Your task to perform on an android device: make emails show in primary in the gmail app Image 0: 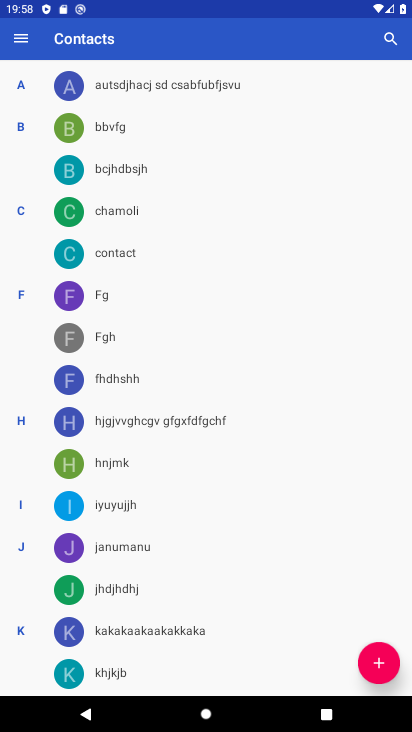
Step 0: press home button
Your task to perform on an android device: make emails show in primary in the gmail app Image 1: 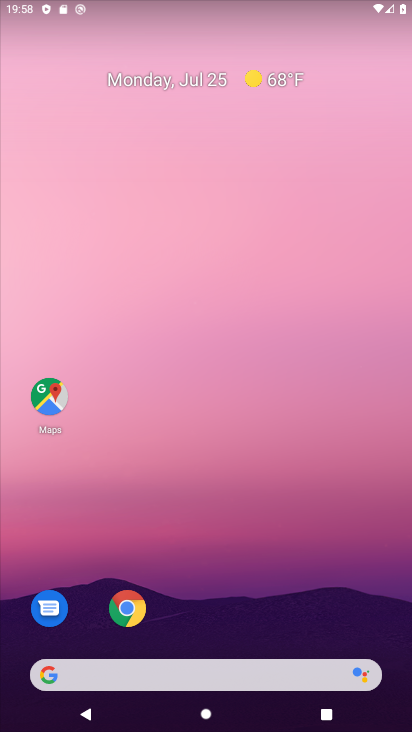
Step 1: drag from (270, 620) to (257, 3)
Your task to perform on an android device: make emails show in primary in the gmail app Image 2: 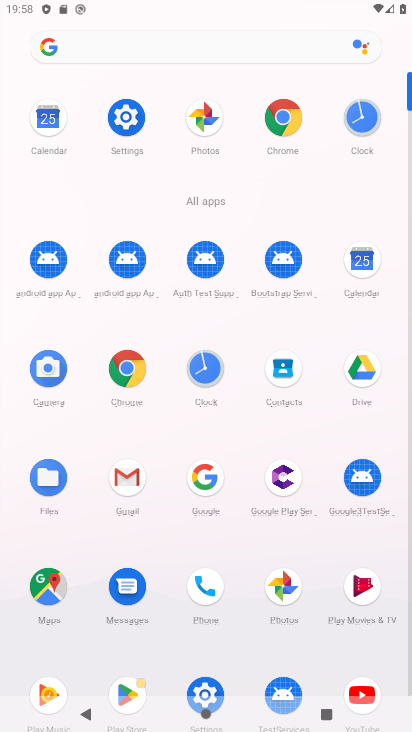
Step 2: click (128, 482)
Your task to perform on an android device: make emails show in primary in the gmail app Image 3: 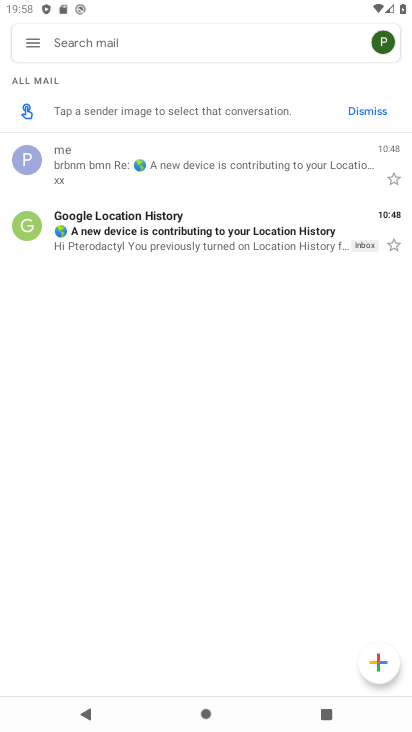
Step 3: click (29, 43)
Your task to perform on an android device: make emails show in primary in the gmail app Image 4: 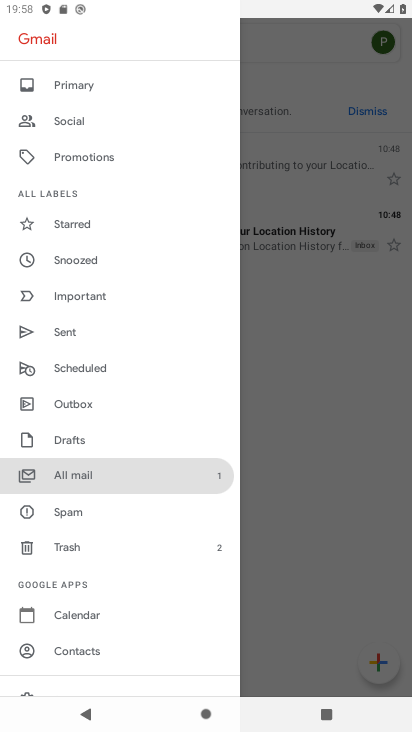
Step 4: drag from (157, 623) to (145, 322)
Your task to perform on an android device: make emails show in primary in the gmail app Image 5: 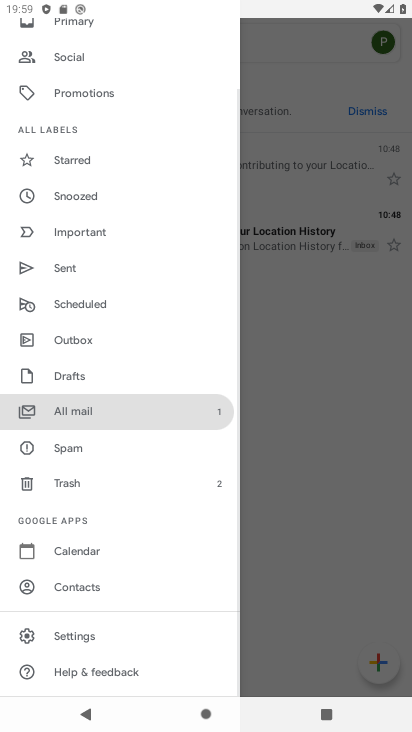
Step 5: click (100, 634)
Your task to perform on an android device: make emails show in primary in the gmail app Image 6: 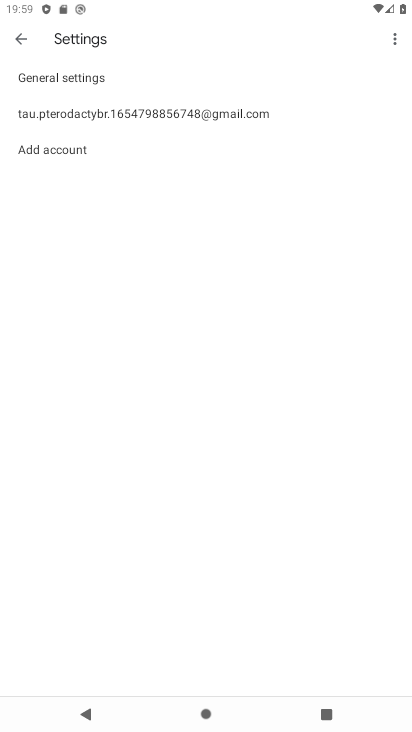
Step 6: click (65, 115)
Your task to perform on an android device: make emails show in primary in the gmail app Image 7: 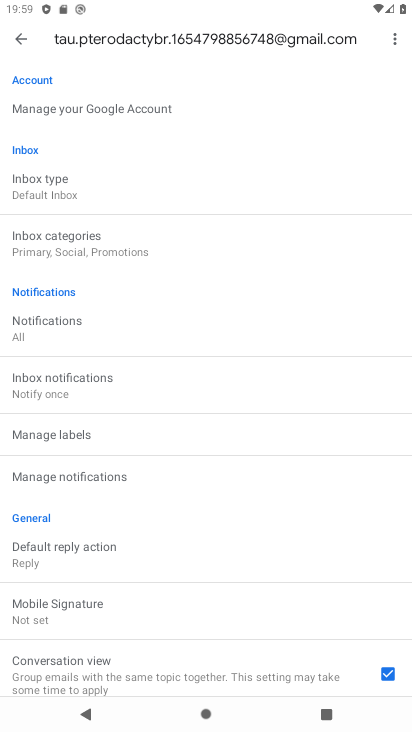
Step 7: click (51, 194)
Your task to perform on an android device: make emails show in primary in the gmail app Image 8: 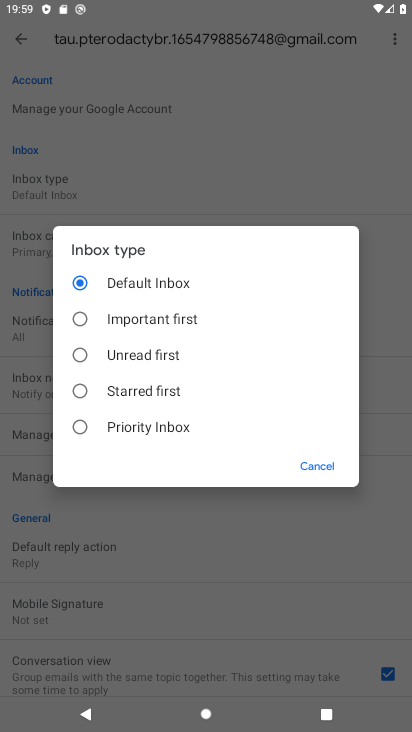
Step 8: click (306, 474)
Your task to perform on an android device: make emails show in primary in the gmail app Image 9: 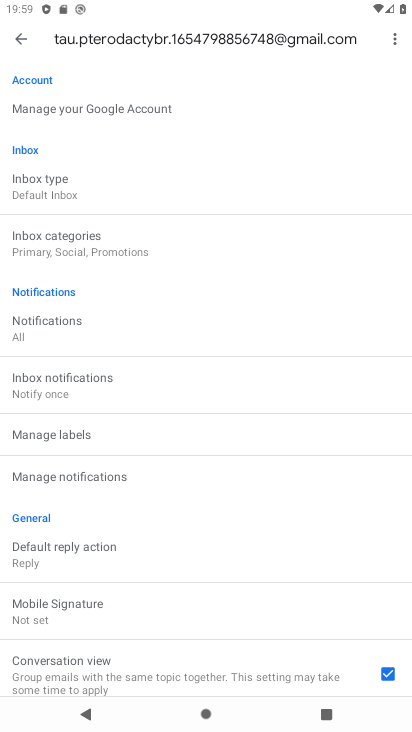
Step 9: click (30, 255)
Your task to perform on an android device: make emails show in primary in the gmail app Image 10: 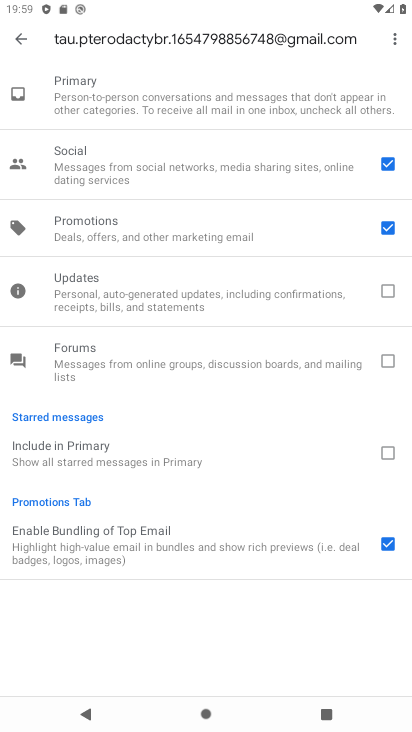
Step 10: click (386, 163)
Your task to perform on an android device: make emails show in primary in the gmail app Image 11: 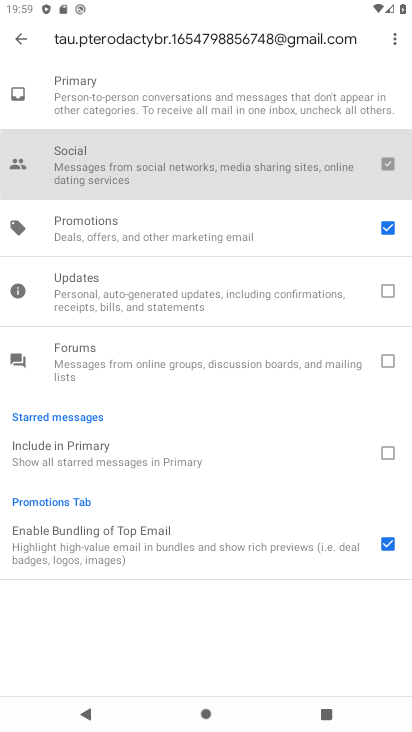
Step 11: click (388, 226)
Your task to perform on an android device: make emails show in primary in the gmail app Image 12: 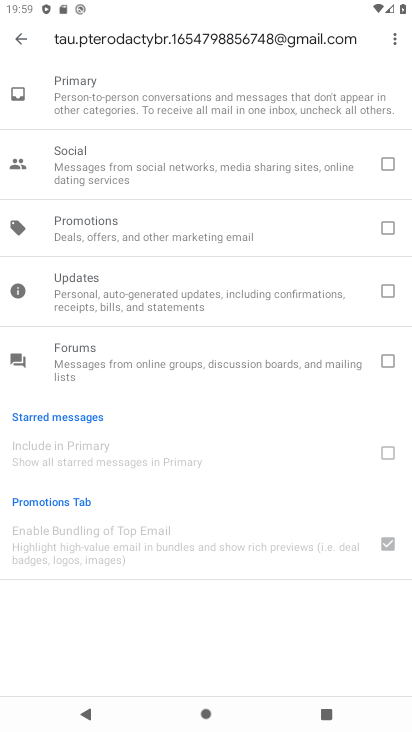
Step 12: click (18, 40)
Your task to perform on an android device: make emails show in primary in the gmail app Image 13: 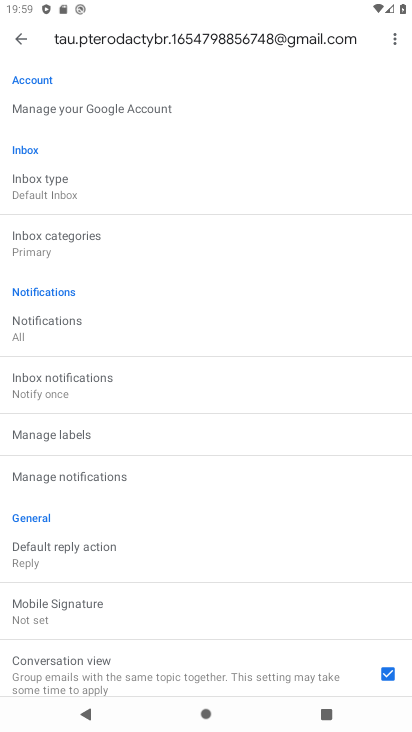
Step 13: task complete